Your task to perform on an android device: install app "DuckDuckGo Privacy Browser" Image 0: 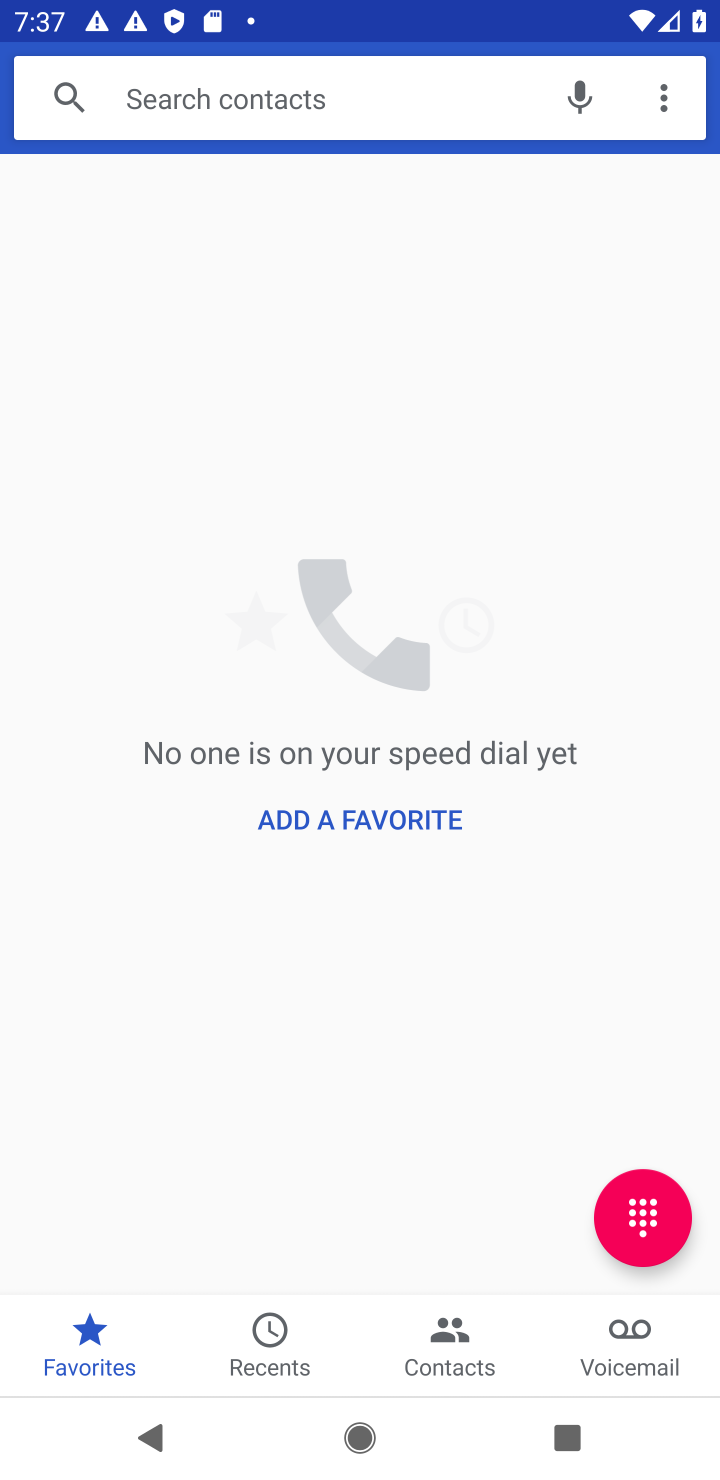
Step 0: drag from (313, 97) to (288, 3)
Your task to perform on an android device: install app "DuckDuckGo Privacy Browser" Image 1: 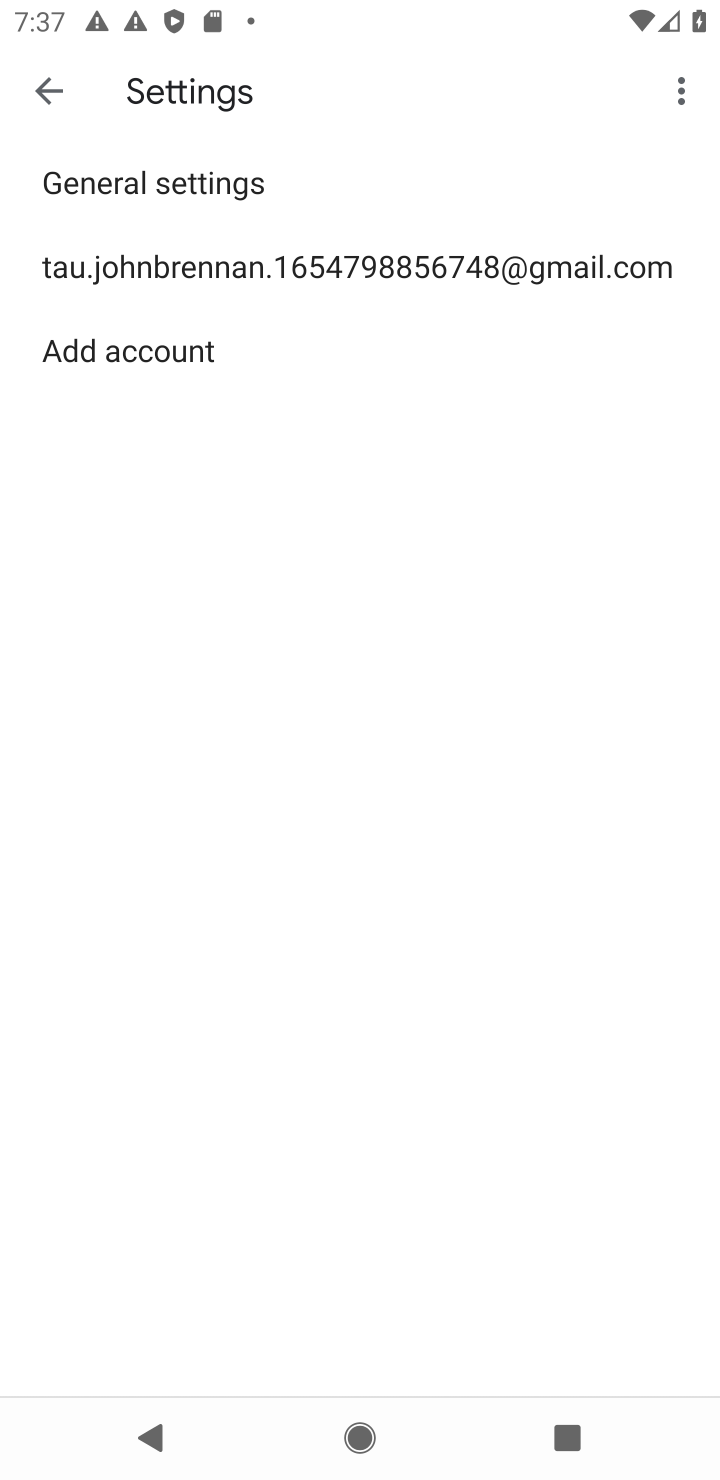
Step 1: press home button
Your task to perform on an android device: install app "DuckDuckGo Privacy Browser" Image 2: 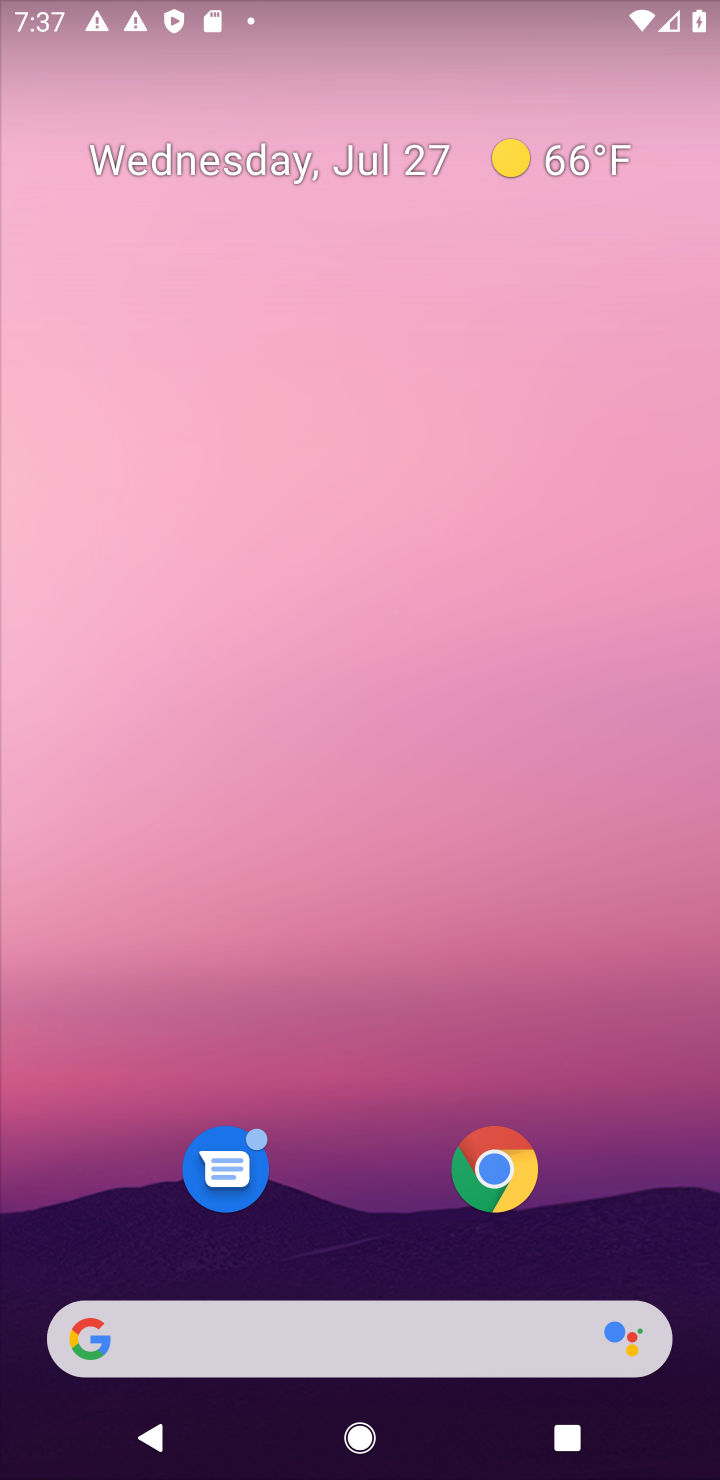
Step 2: drag from (344, 1241) to (350, 146)
Your task to perform on an android device: install app "DuckDuckGo Privacy Browser" Image 3: 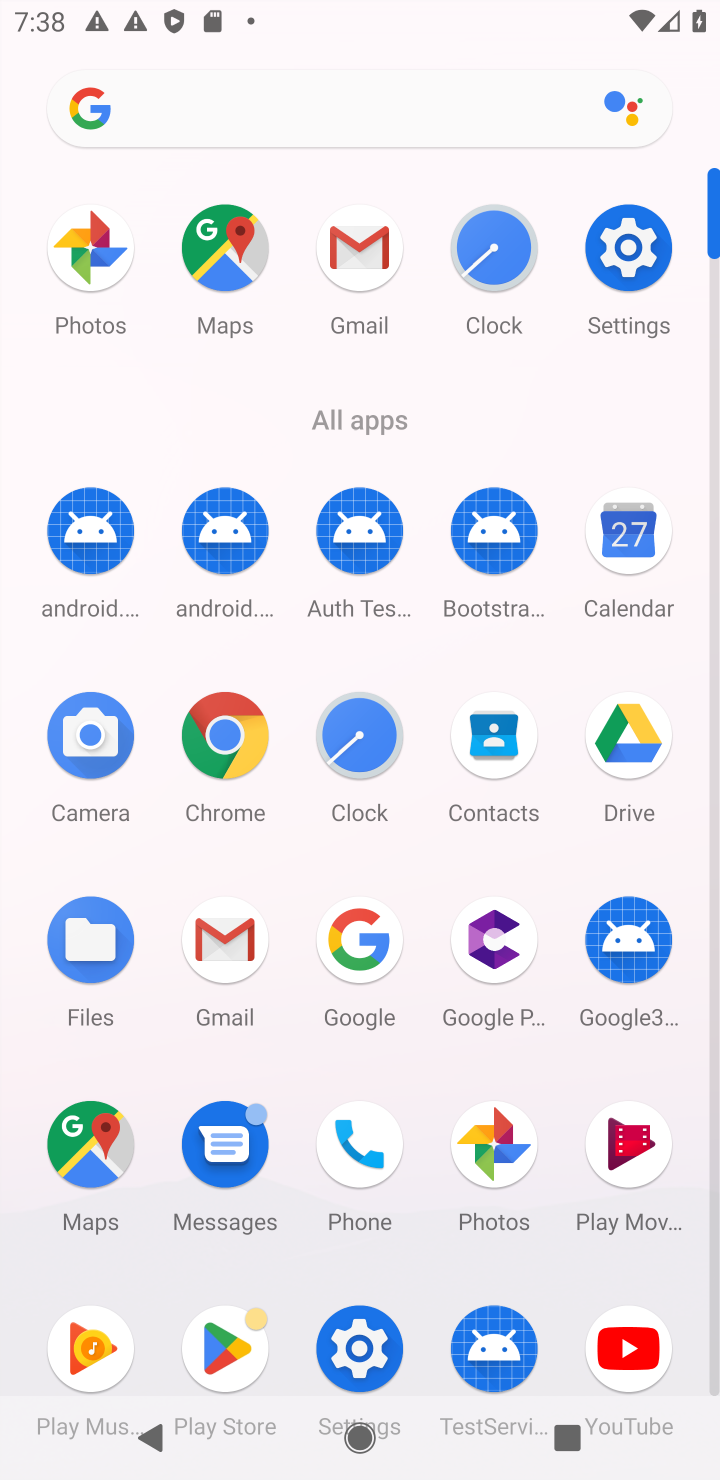
Step 3: click (226, 1347)
Your task to perform on an android device: install app "DuckDuckGo Privacy Browser" Image 4: 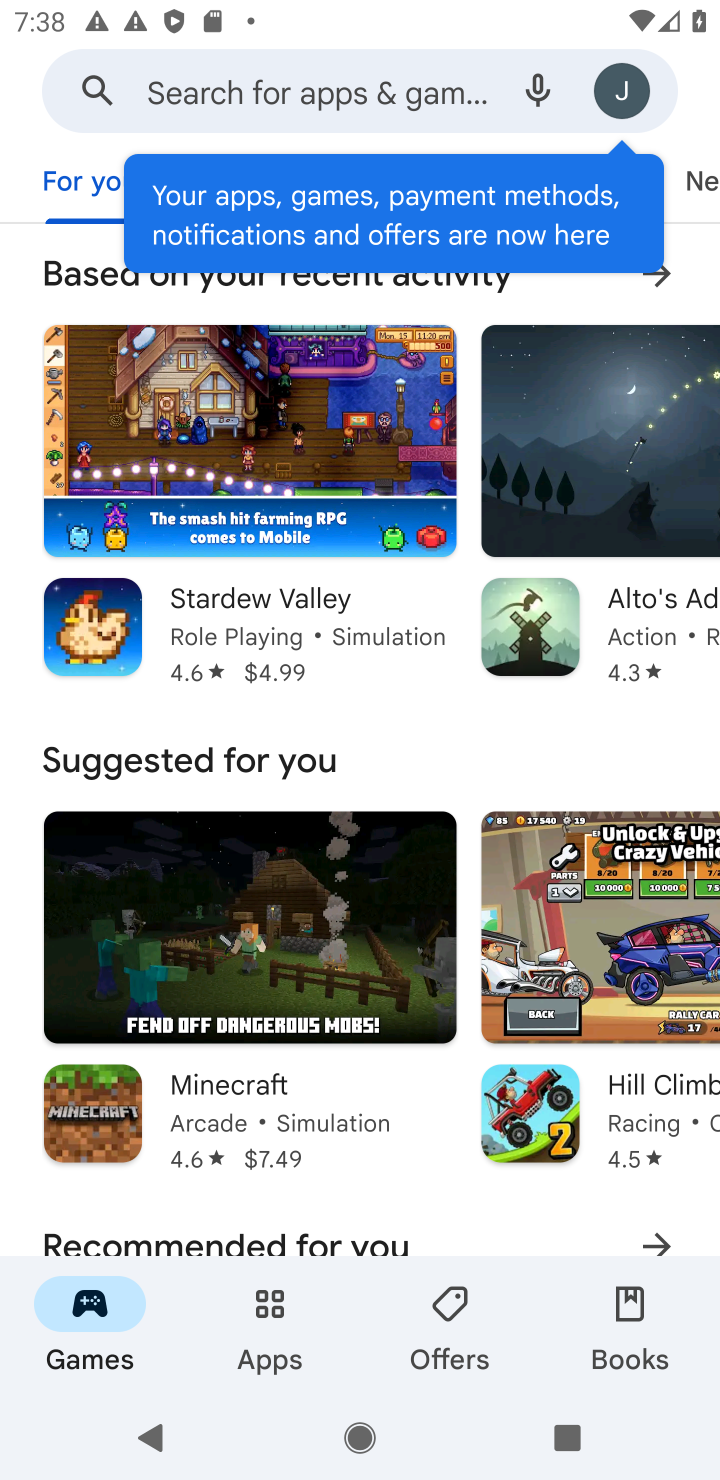
Step 4: click (205, 81)
Your task to perform on an android device: install app "DuckDuckGo Privacy Browser" Image 5: 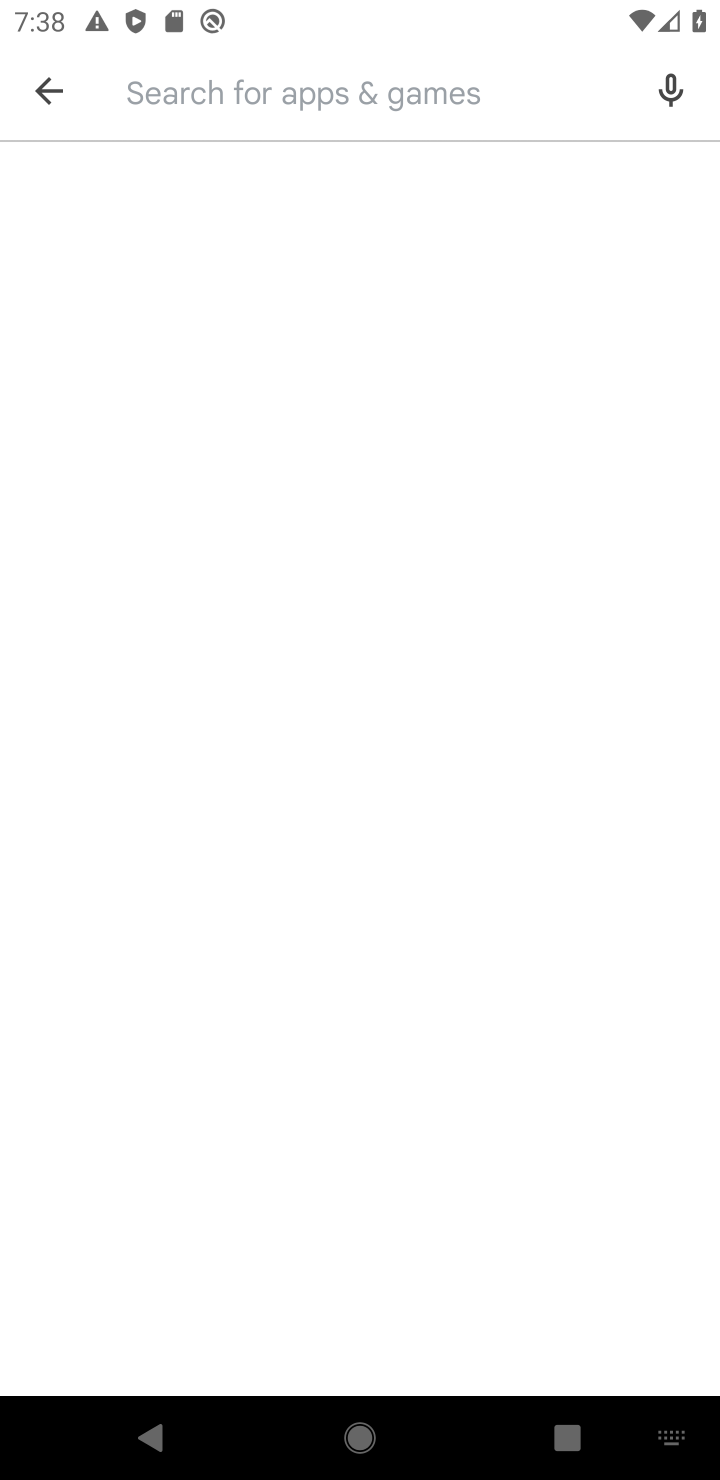
Step 5: type "DuckDuckGo Privacy Browser"
Your task to perform on an android device: install app "DuckDuckGo Privacy Browser" Image 6: 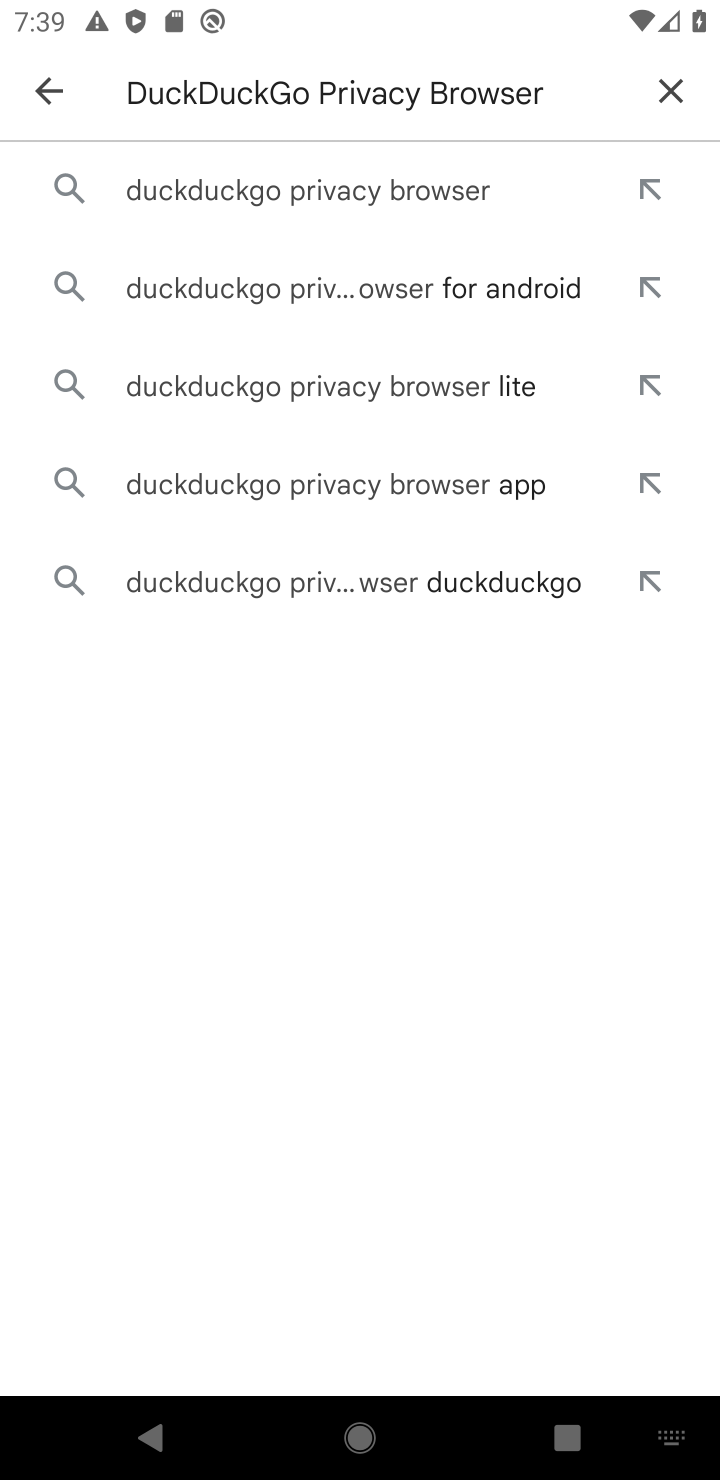
Step 6: click (347, 182)
Your task to perform on an android device: install app "DuckDuckGo Privacy Browser" Image 7: 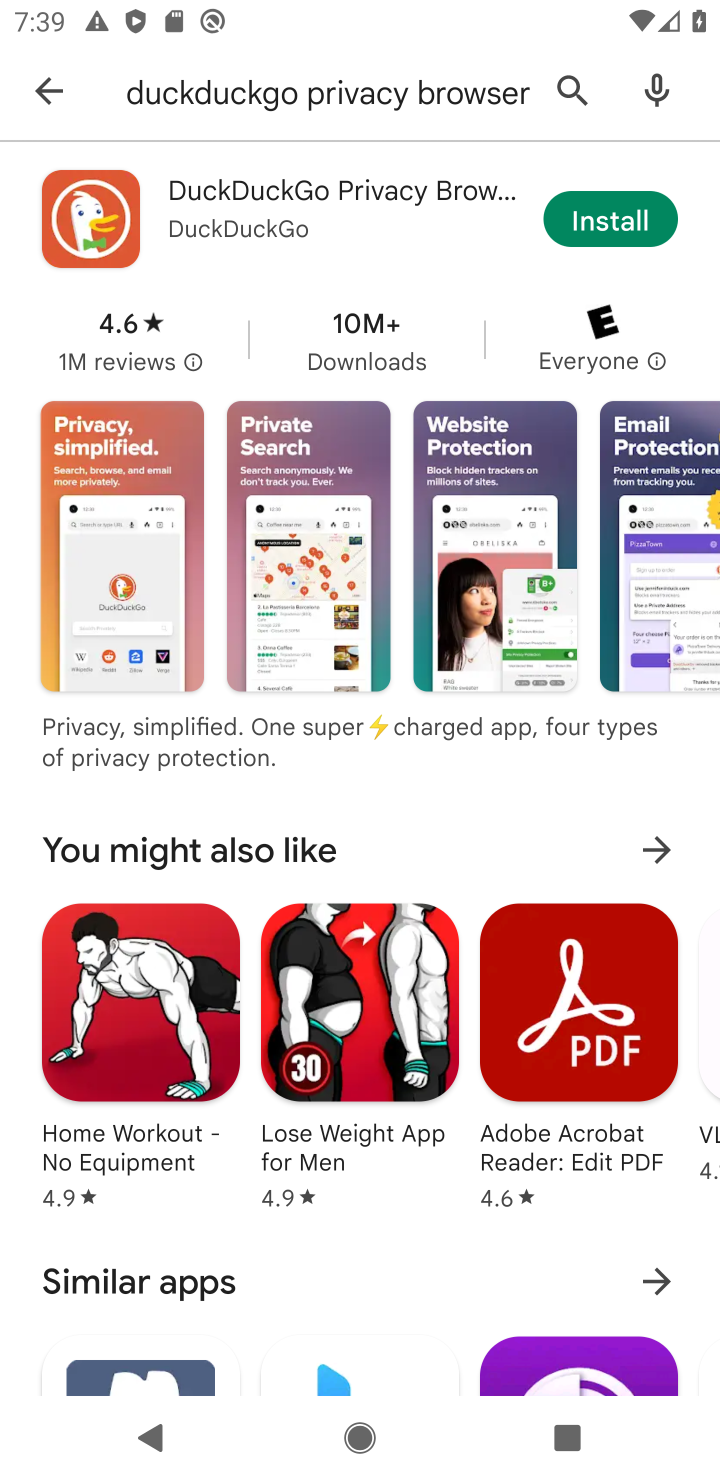
Step 7: click (621, 214)
Your task to perform on an android device: install app "DuckDuckGo Privacy Browser" Image 8: 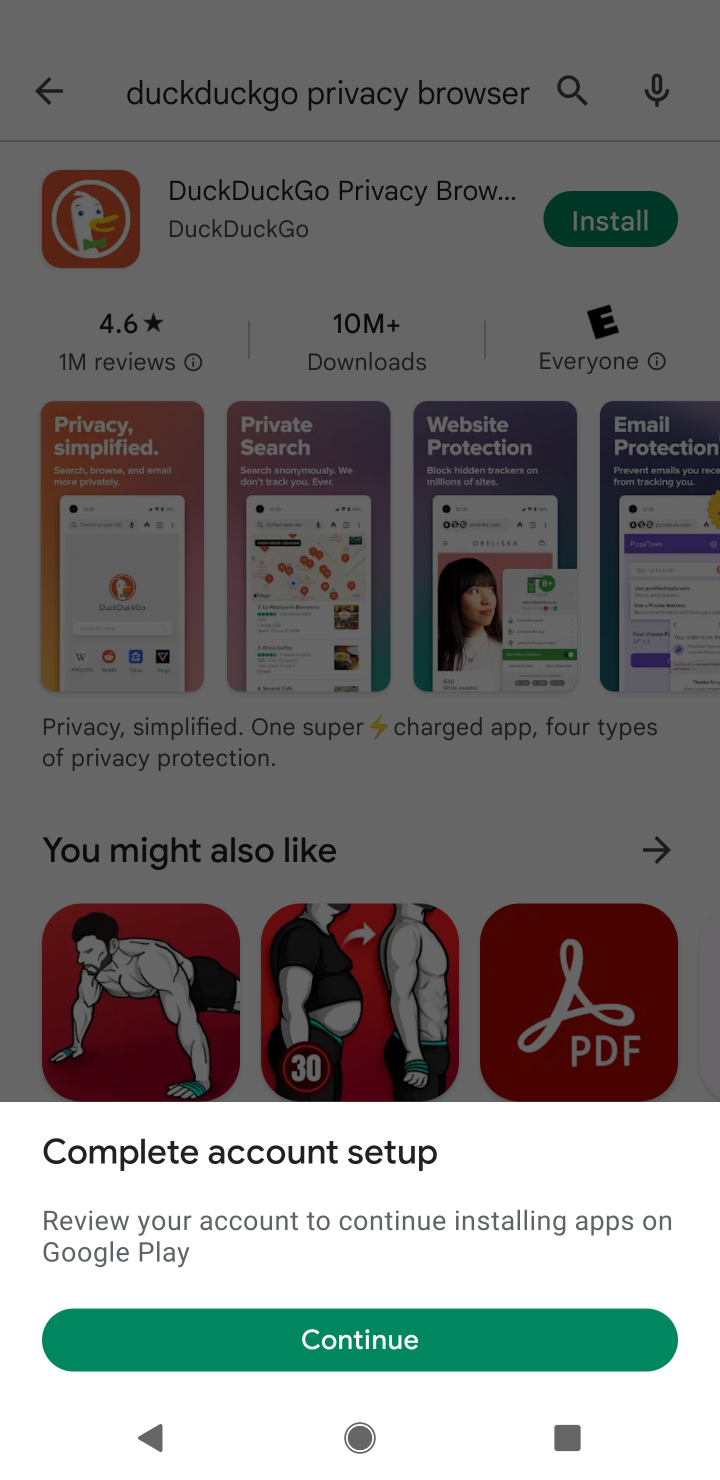
Step 8: click (368, 1343)
Your task to perform on an android device: install app "DuckDuckGo Privacy Browser" Image 9: 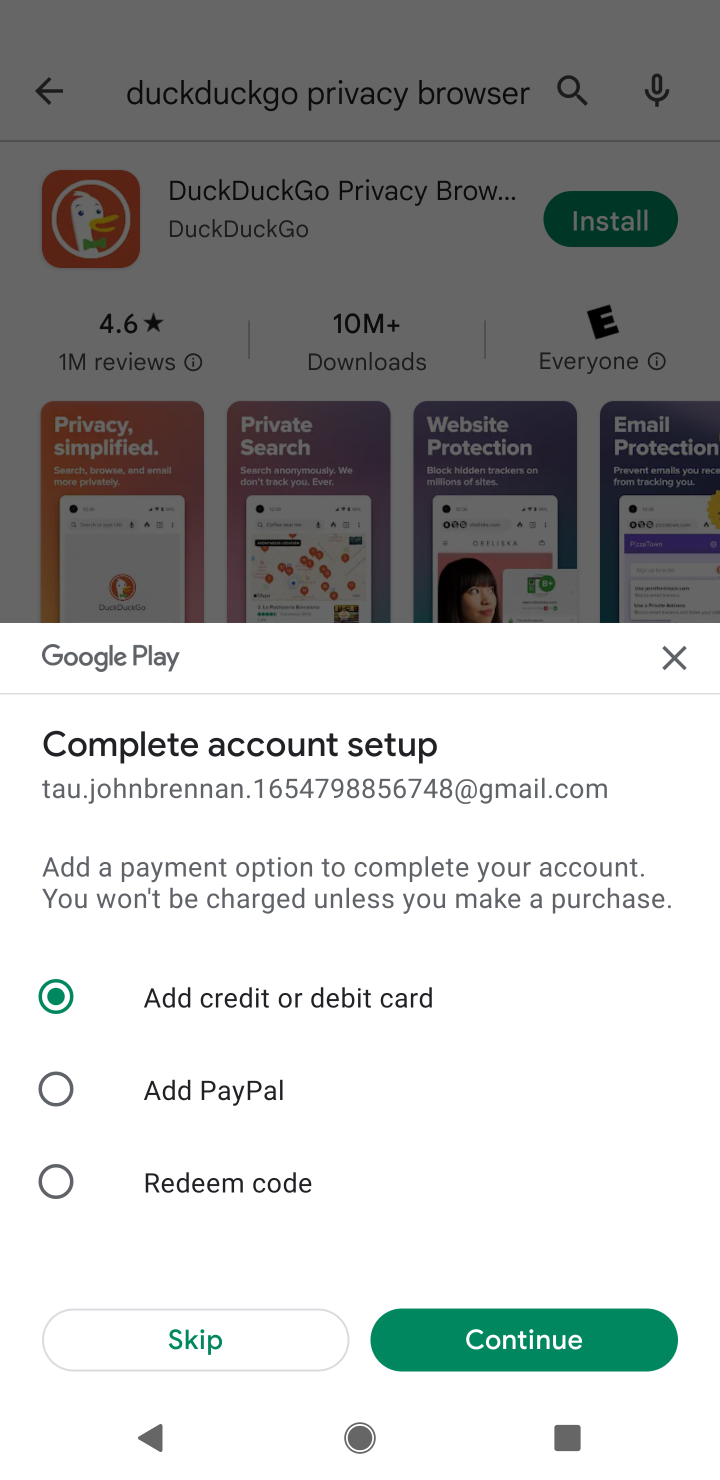
Step 9: click (183, 1340)
Your task to perform on an android device: install app "DuckDuckGo Privacy Browser" Image 10: 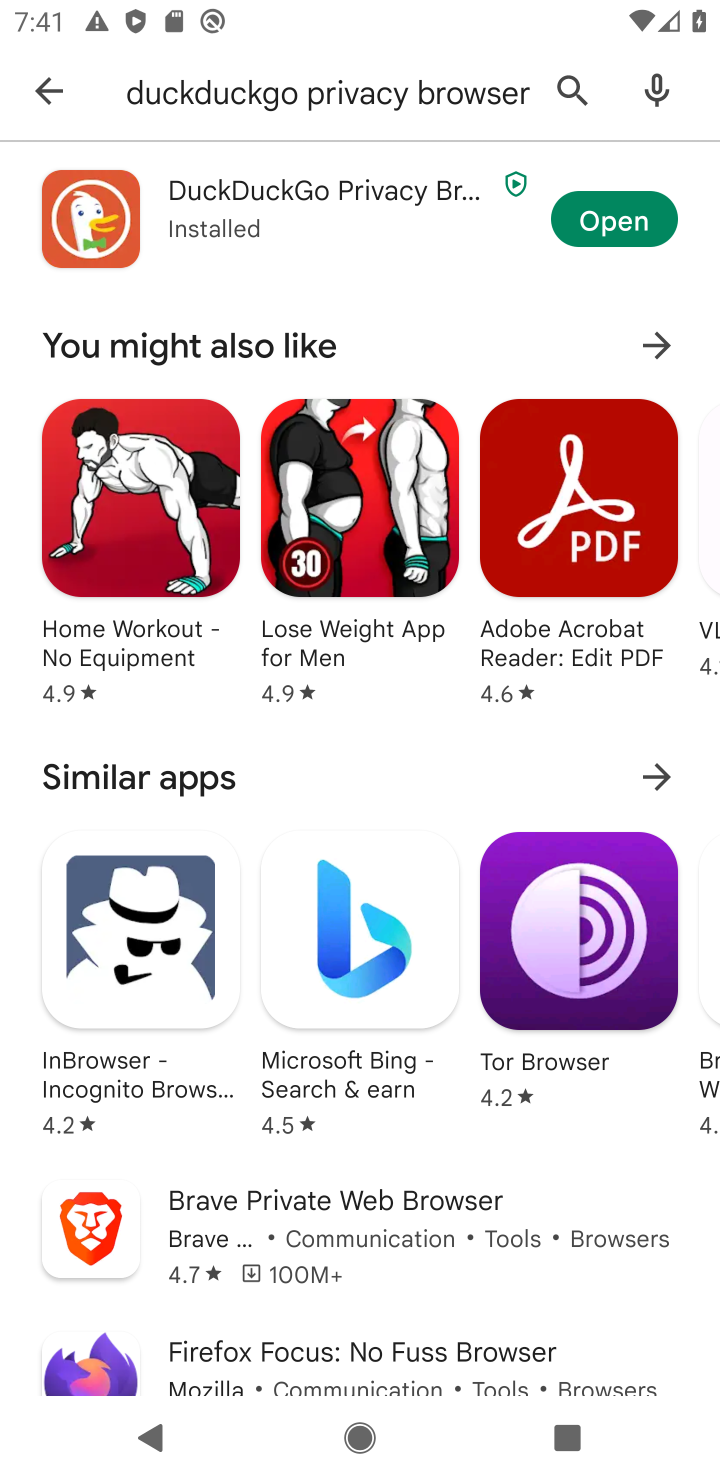
Step 10: task complete